Your task to perform on an android device: change the upload size in google photos Image 0: 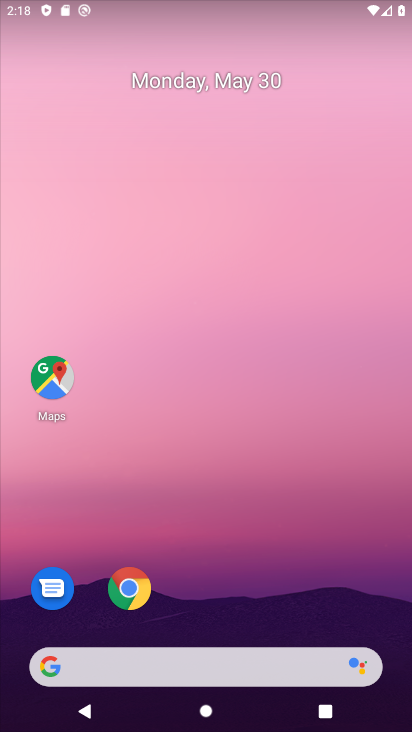
Step 0: drag from (214, 523) to (310, 431)
Your task to perform on an android device: change the upload size in google photos Image 1: 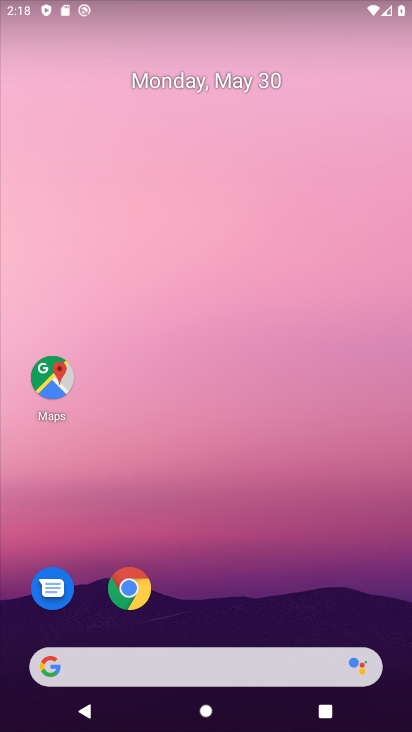
Step 1: drag from (269, 422) to (265, 232)
Your task to perform on an android device: change the upload size in google photos Image 2: 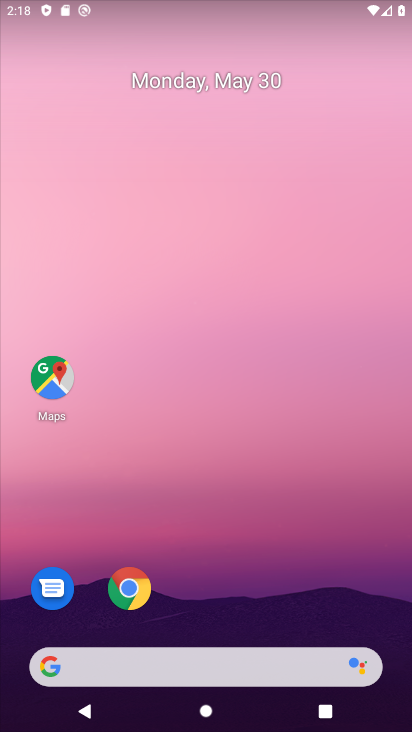
Step 2: drag from (280, 547) to (284, 264)
Your task to perform on an android device: change the upload size in google photos Image 3: 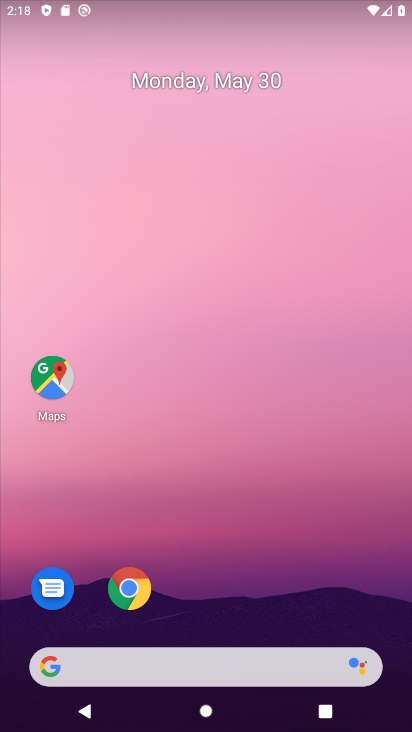
Step 3: drag from (229, 586) to (192, 291)
Your task to perform on an android device: change the upload size in google photos Image 4: 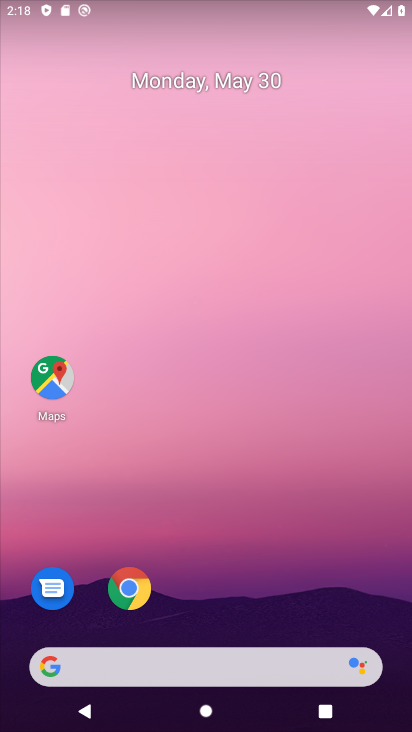
Step 4: drag from (220, 623) to (249, 100)
Your task to perform on an android device: change the upload size in google photos Image 5: 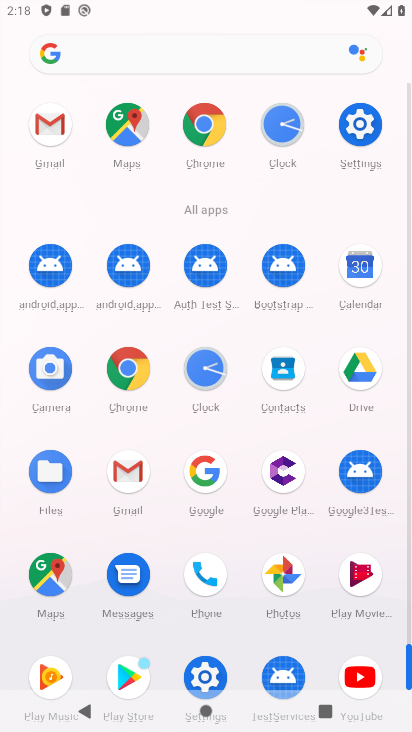
Step 5: click (266, 578)
Your task to perform on an android device: change the upload size in google photos Image 6: 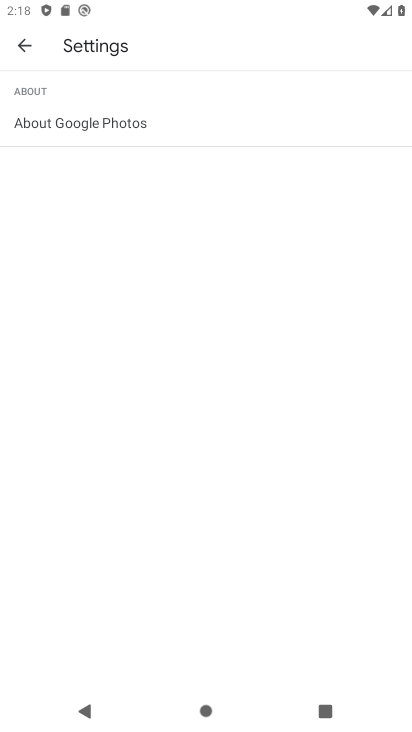
Step 6: click (10, 41)
Your task to perform on an android device: change the upload size in google photos Image 7: 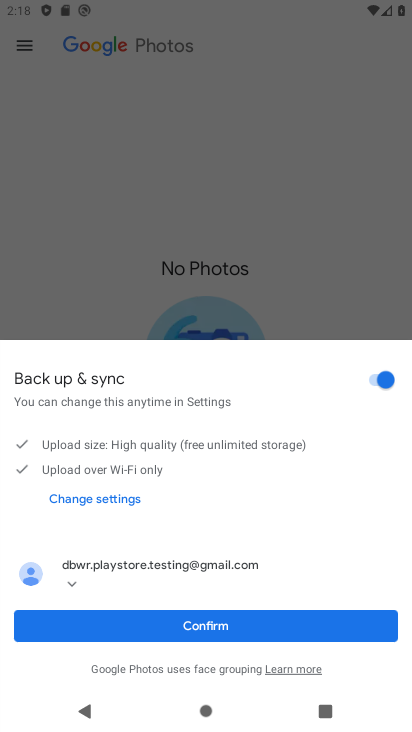
Step 7: click (271, 623)
Your task to perform on an android device: change the upload size in google photos Image 8: 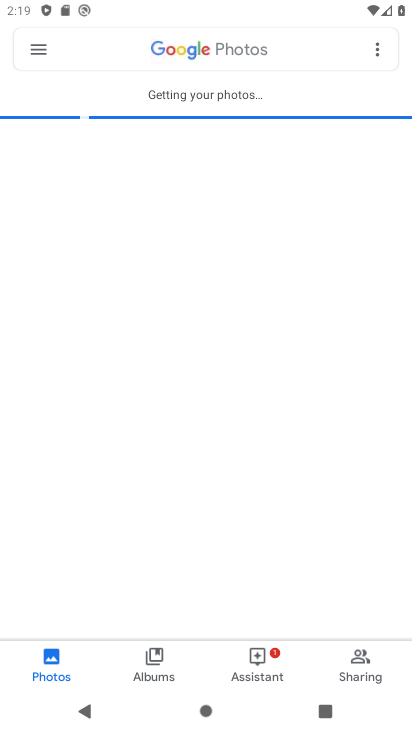
Step 8: click (35, 47)
Your task to perform on an android device: change the upload size in google photos Image 9: 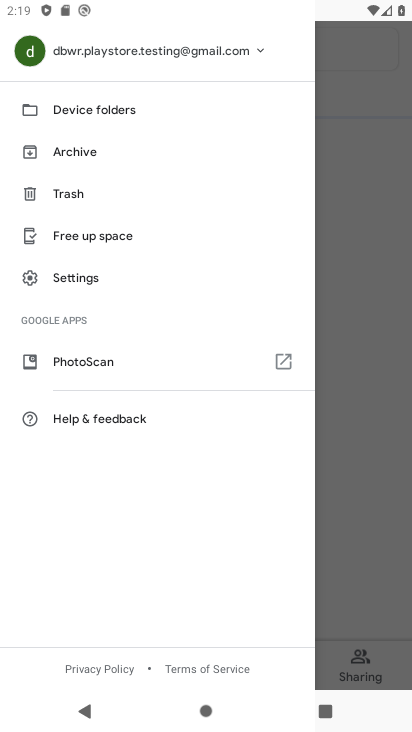
Step 9: click (77, 270)
Your task to perform on an android device: change the upload size in google photos Image 10: 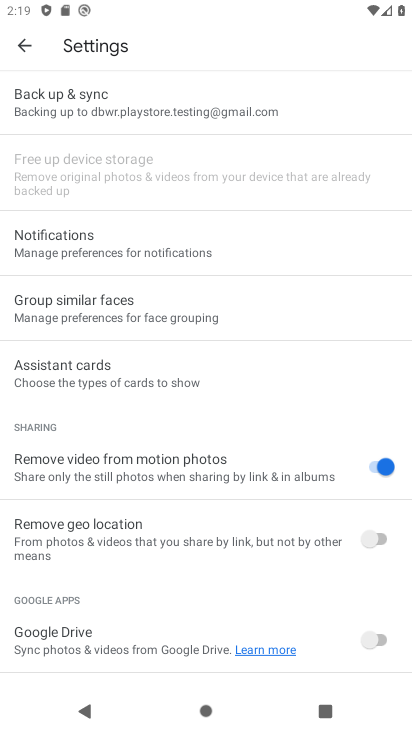
Step 10: task complete